Your task to perform on an android device: open app "Skype" (install if not already installed) and enter user name: "rumor@gmail.com" and password: "kinsman" Image 0: 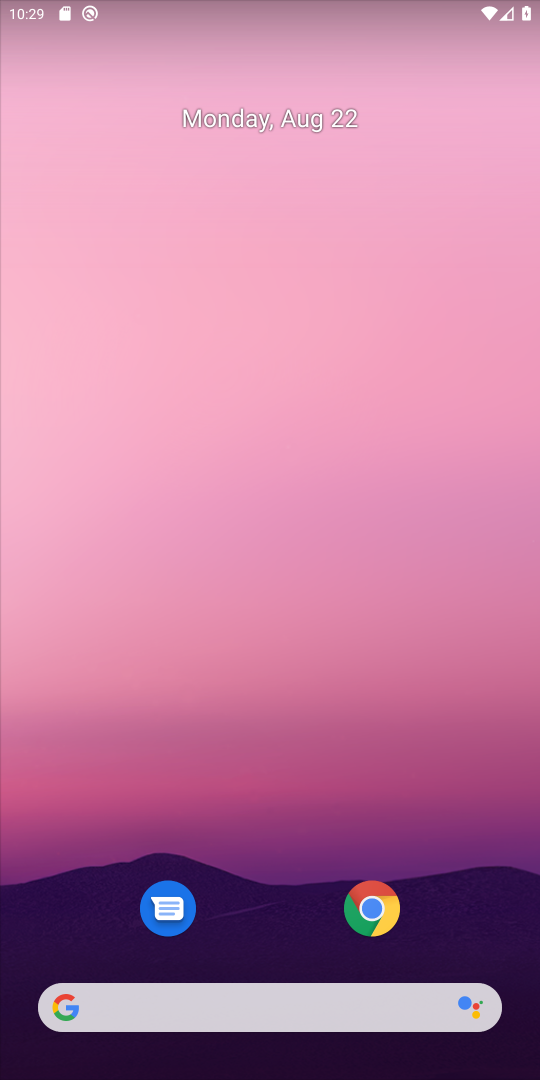
Step 0: drag from (277, 962) to (350, 119)
Your task to perform on an android device: open app "Skype" (install if not already installed) and enter user name: "rumor@gmail.com" and password: "kinsman" Image 1: 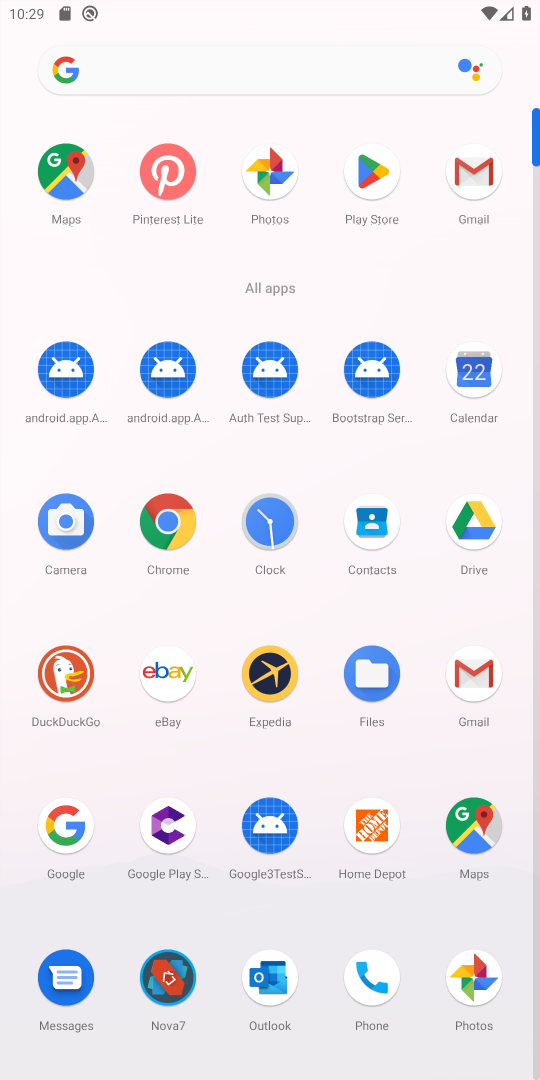
Step 1: click (369, 158)
Your task to perform on an android device: open app "Skype" (install if not already installed) and enter user name: "rumor@gmail.com" and password: "kinsman" Image 2: 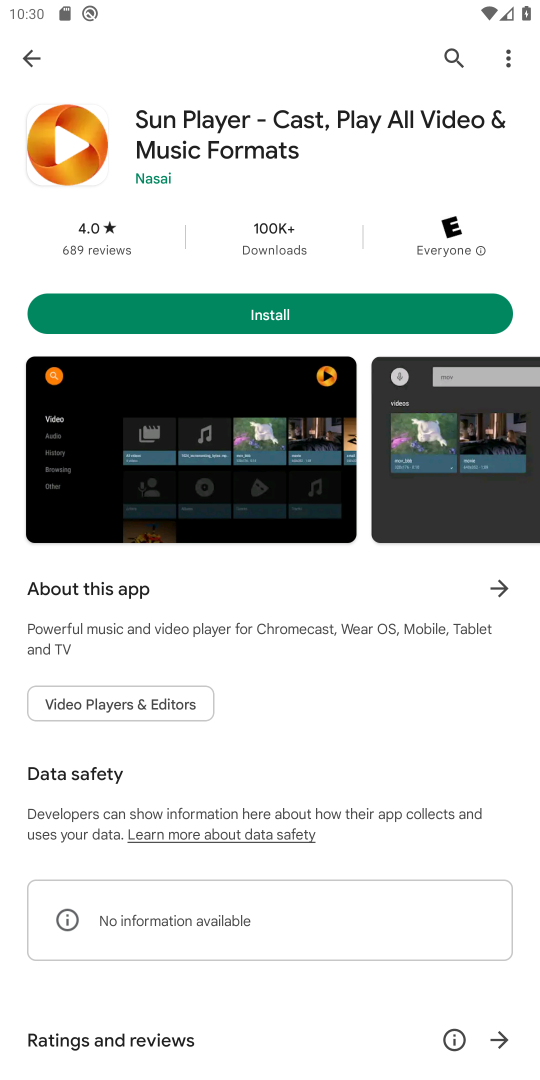
Step 2: click (457, 43)
Your task to perform on an android device: open app "Skype" (install if not already installed) and enter user name: "rumor@gmail.com" and password: "kinsman" Image 3: 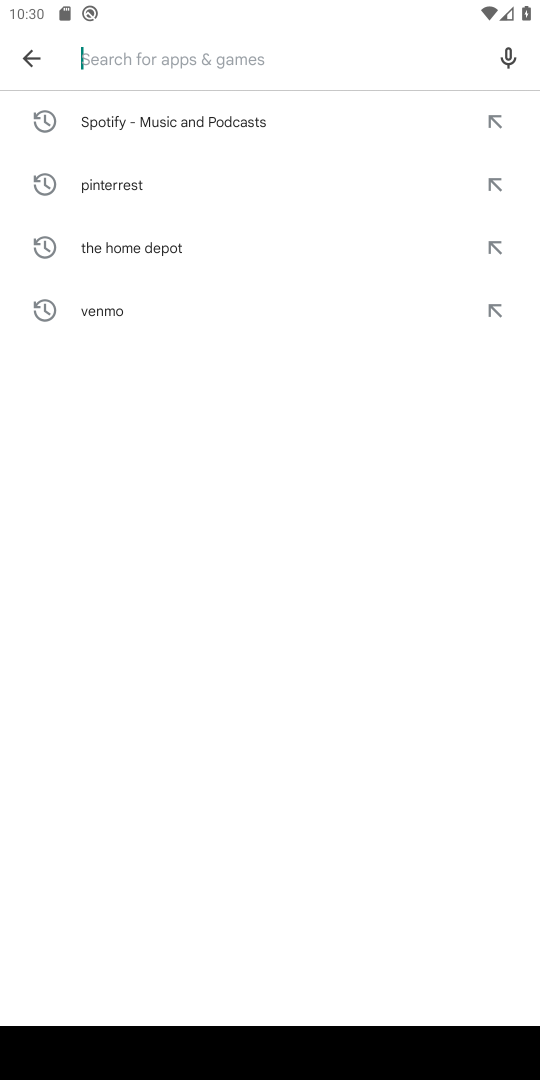
Step 3: type "skype "
Your task to perform on an android device: open app "Skype" (install if not already installed) and enter user name: "rumor@gmail.com" and password: "kinsman" Image 4: 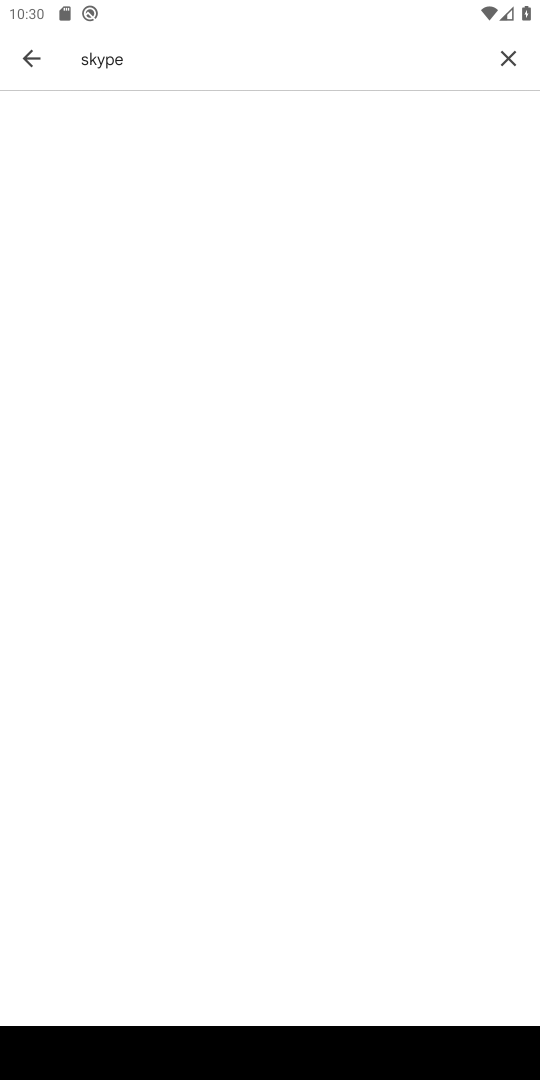
Step 4: task complete